Your task to perform on an android device: Go to display settings Image 0: 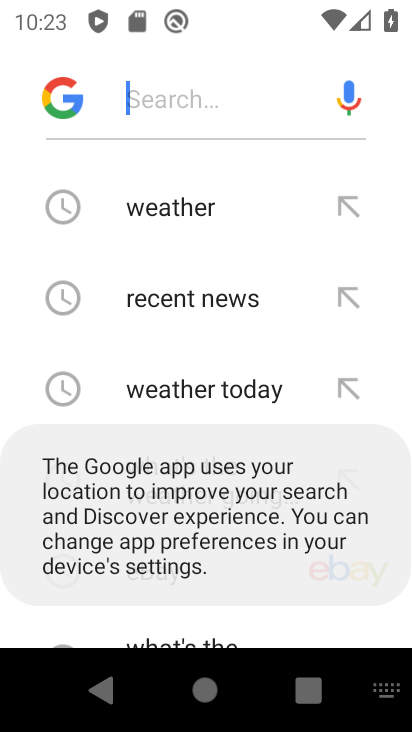
Step 0: press home button
Your task to perform on an android device: Go to display settings Image 1: 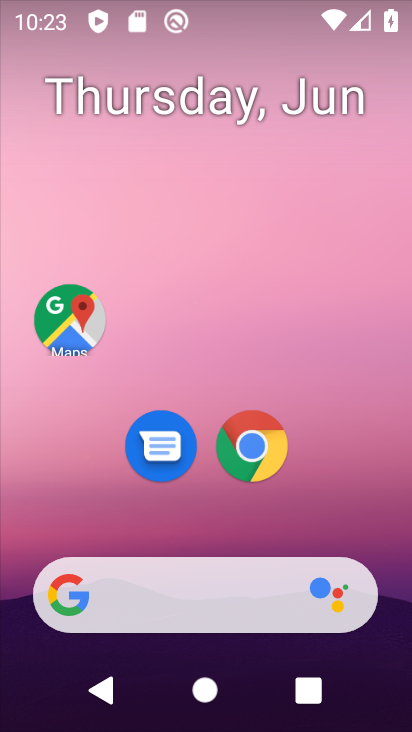
Step 1: drag from (352, 493) to (273, 127)
Your task to perform on an android device: Go to display settings Image 2: 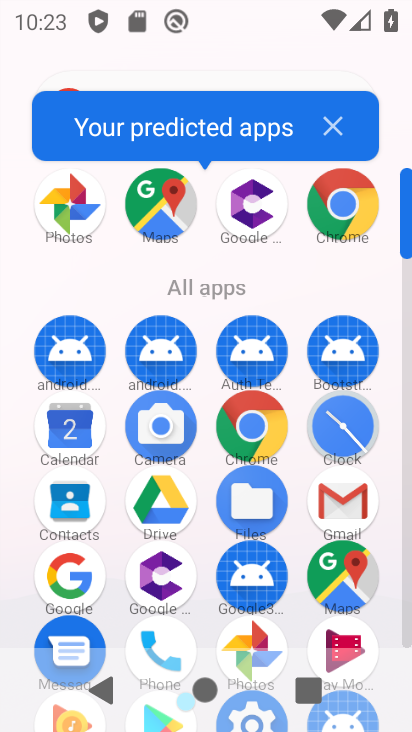
Step 2: drag from (198, 433) to (204, 348)
Your task to perform on an android device: Go to display settings Image 3: 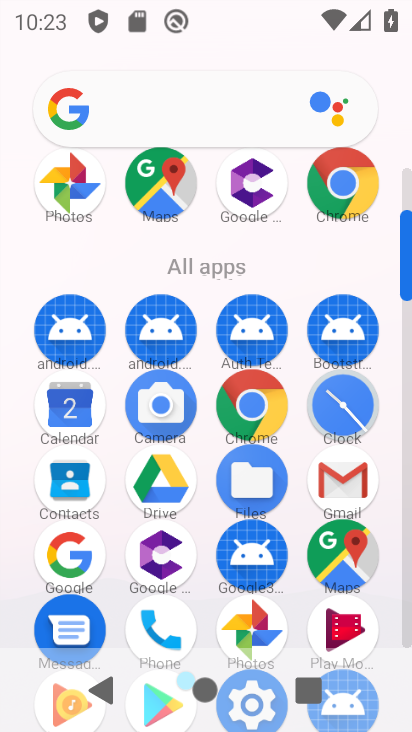
Step 3: drag from (204, 538) to (202, 283)
Your task to perform on an android device: Go to display settings Image 4: 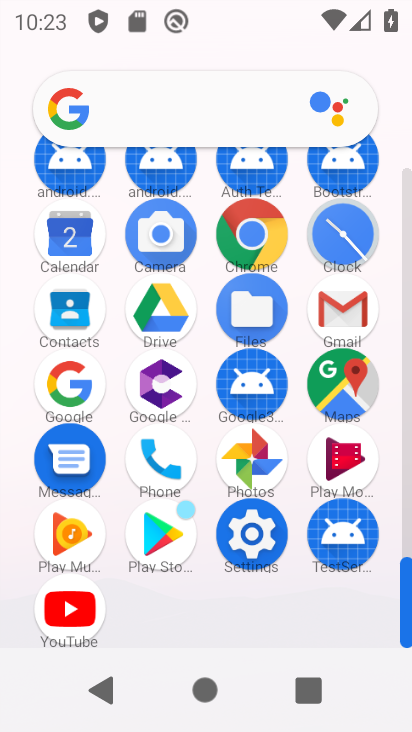
Step 4: click (243, 550)
Your task to perform on an android device: Go to display settings Image 5: 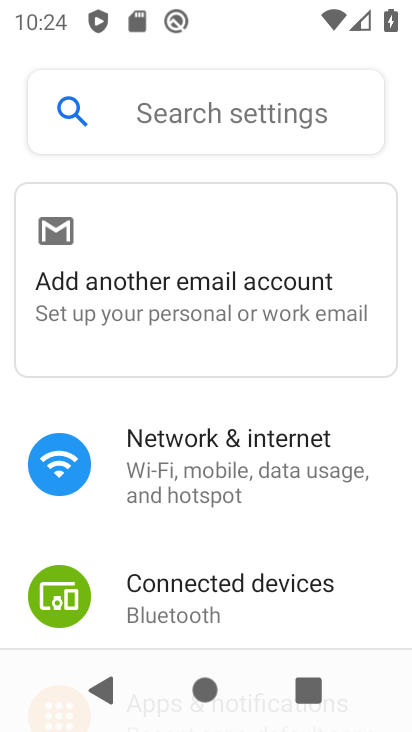
Step 5: drag from (270, 499) to (241, 190)
Your task to perform on an android device: Go to display settings Image 6: 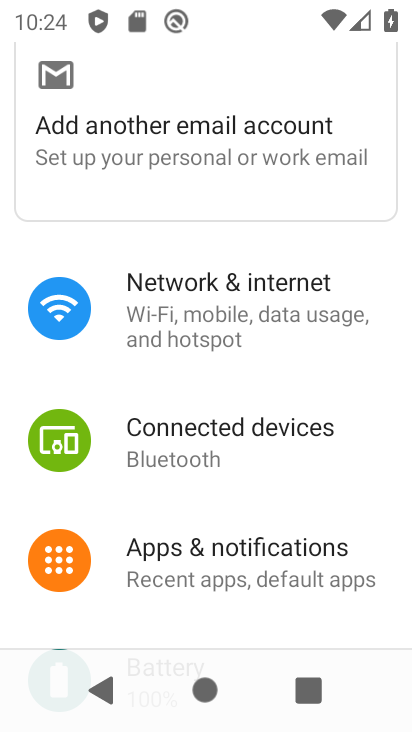
Step 6: drag from (258, 516) to (264, 243)
Your task to perform on an android device: Go to display settings Image 7: 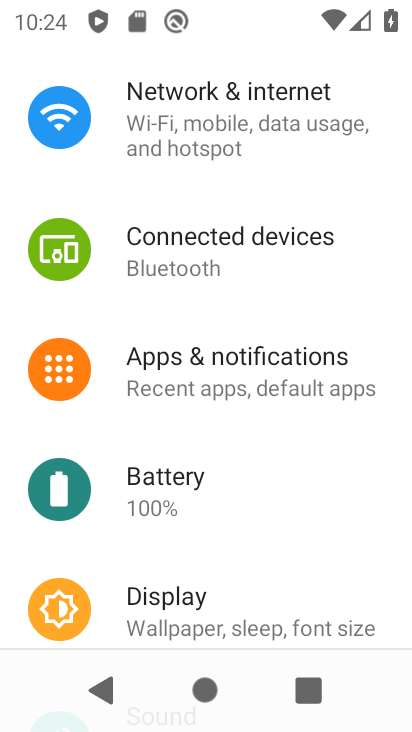
Step 7: click (265, 236)
Your task to perform on an android device: Go to display settings Image 8: 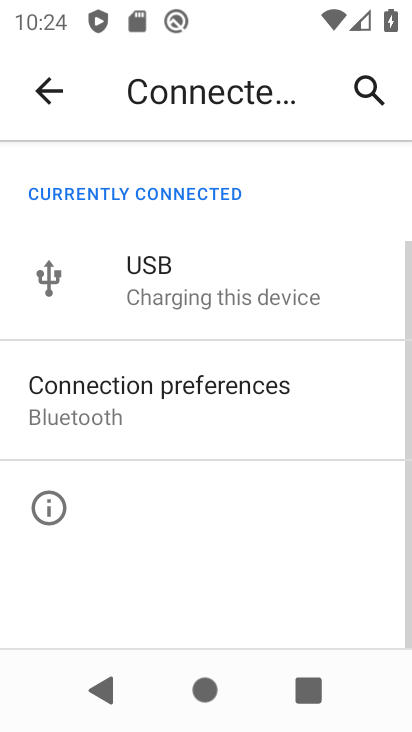
Step 8: click (50, 100)
Your task to perform on an android device: Go to display settings Image 9: 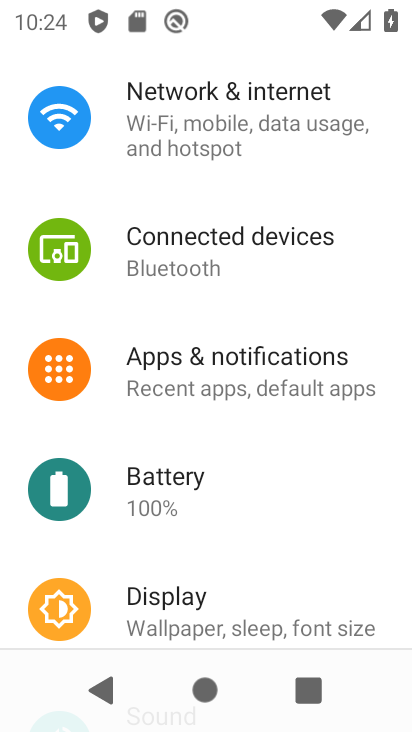
Step 9: click (201, 605)
Your task to perform on an android device: Go to display settings Image 10: 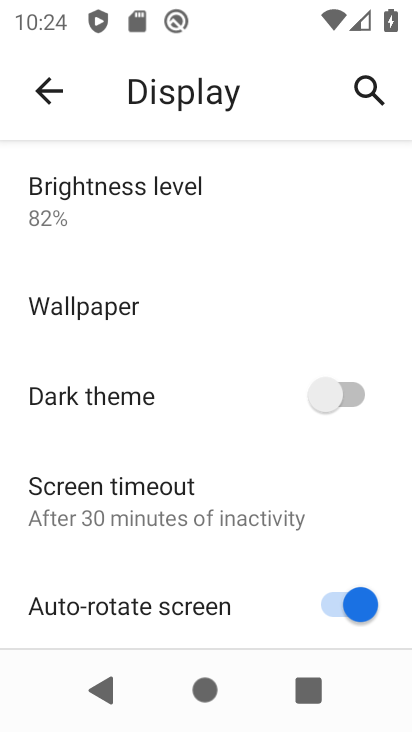
Step 10: task complete